Your task to perform on an android device: Go to accessibility settings Image 0: 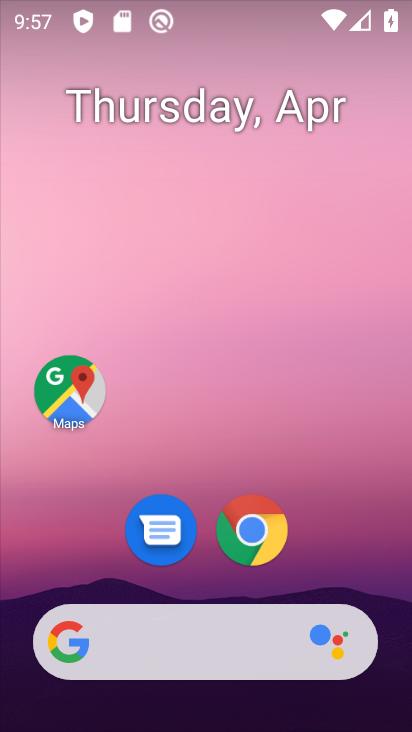
Step 0: drag from (203, 477) to (290, 20)
Your task to perform on an android device: Go to accessibility settings Image 1: 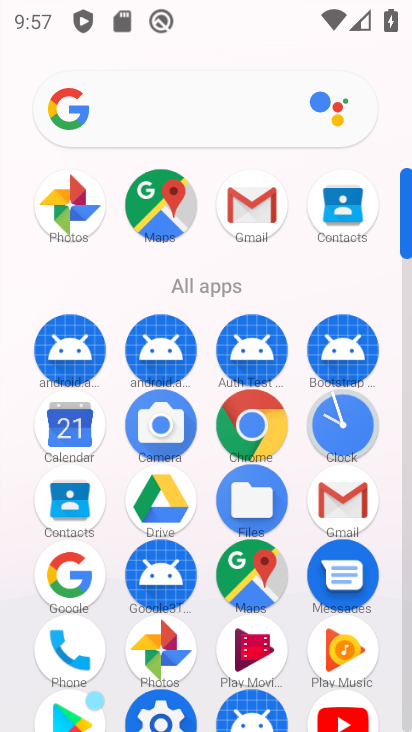
Step 1: drag from (169, 647) to (231, 223)
Your task to perform on an android device: Go to accessibility settings Image 2: 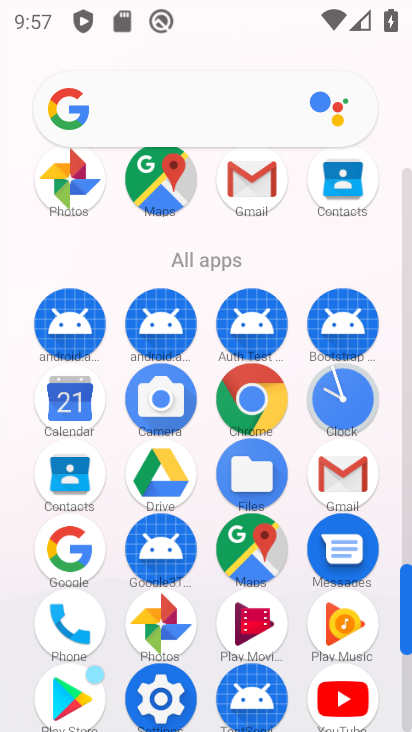
Step 2: click (161, 697)
Your task to perform on an android device: Go to accessibility settings Image 3: 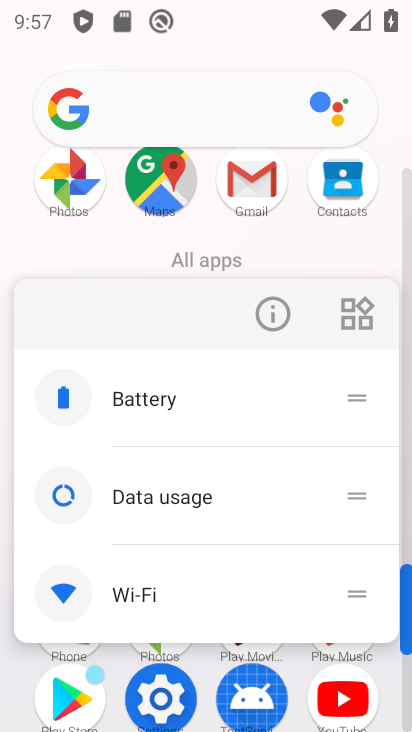
Step 3: click (159, 698)
Your task to perform on an android device: Go to accessibility settings Image 4: 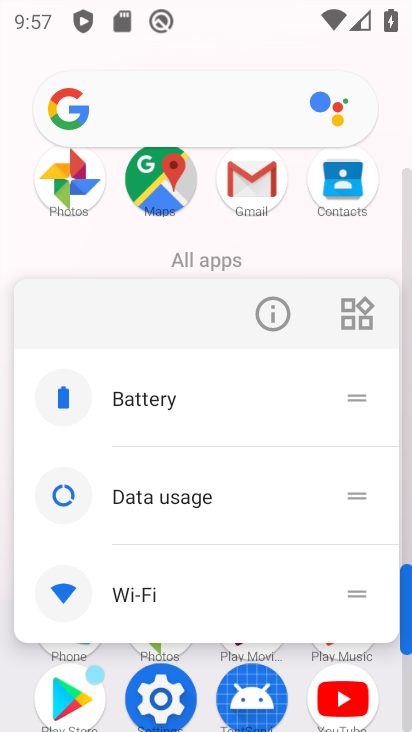
Step 4: click (157, 710)
Your task to perform on an android device: Go to accessibility settings Image 5: 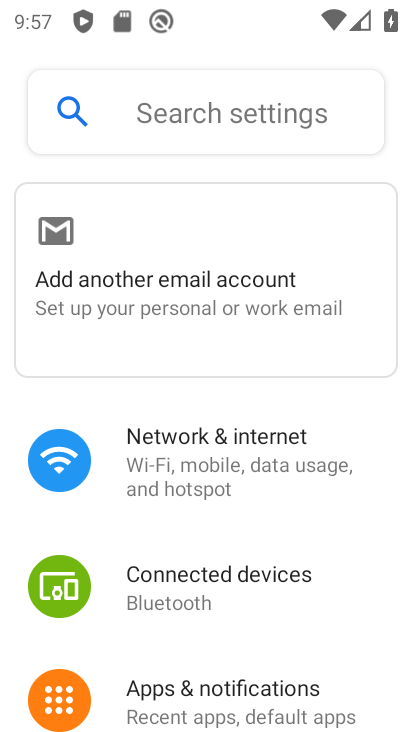
Step 5: drag from (211, 613) to (340, 236)
Your task to perform on an android device: Go to accessibility settings Image 6: 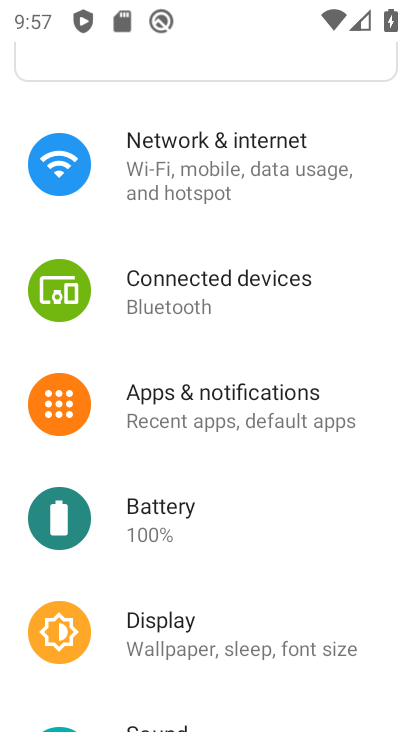
Step 6: drag from (187, 552) to (316, 111)
Your task to perform on an android device: Go to accessibility settings Image 7: 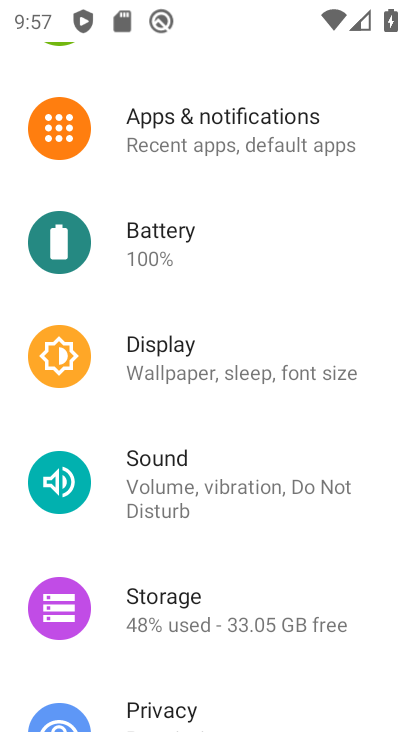
Step 7: drag from (193, 602) to (286, 161)
Your task to perform on an android device: Go to accessibility settings Image 8: 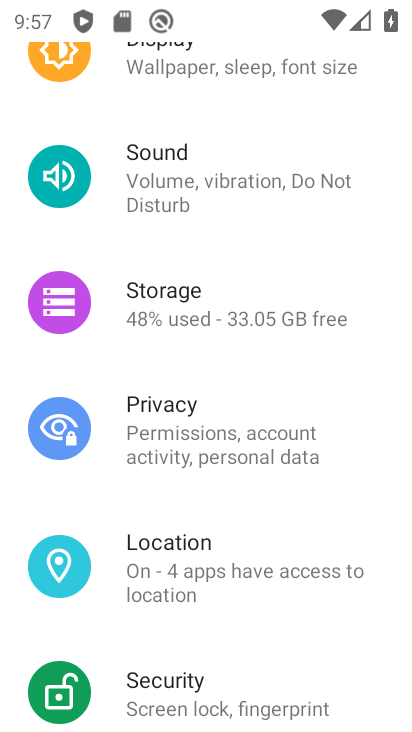
Step 8: drag from (167, 592) to (264, 165)
Your task to perform on an android device: Go to accessibility settings Image 9: 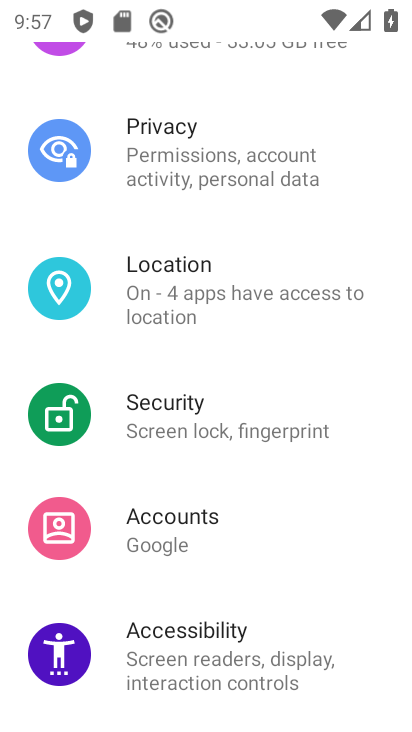
Step 9: click (179, 672)
Your task to perform on an android device: Go to accessibility settings Image 10: 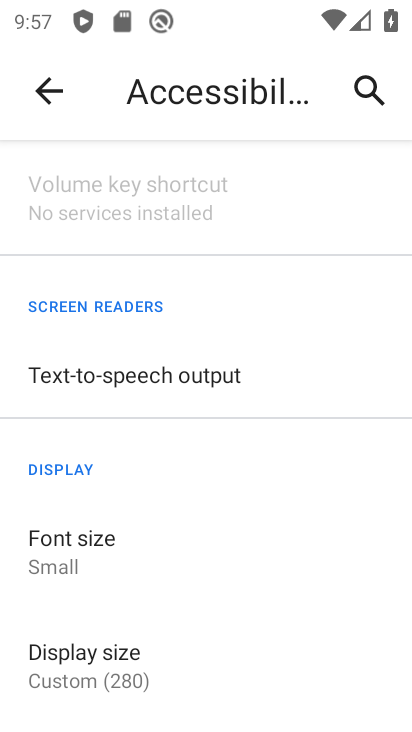
Step 10: task complete